Your task to perform on an android device: Open ESPN.com Image 0: 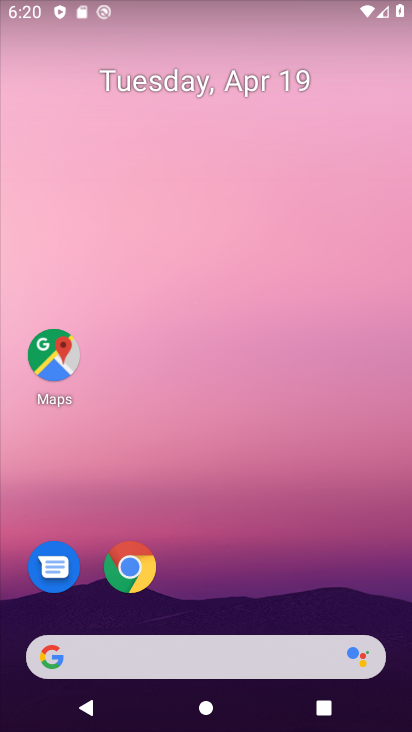
Step 0: click (149, 577)
Your task to perform on an android device: Open ESPN.com Image 1: 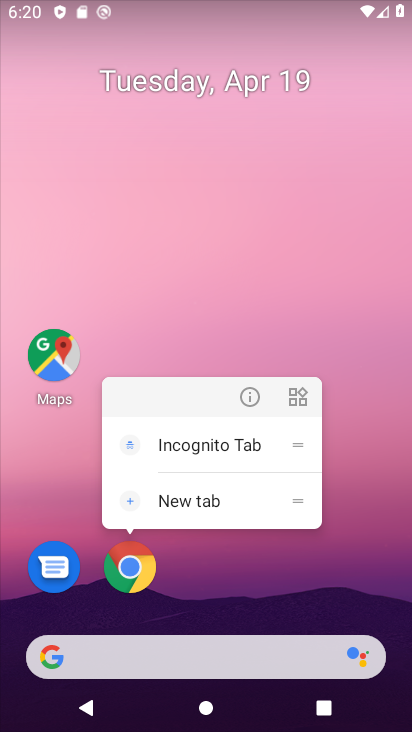
Step 1: click (127, 575)
Your task to perform on an android device: Open ESPN.com Image 2: 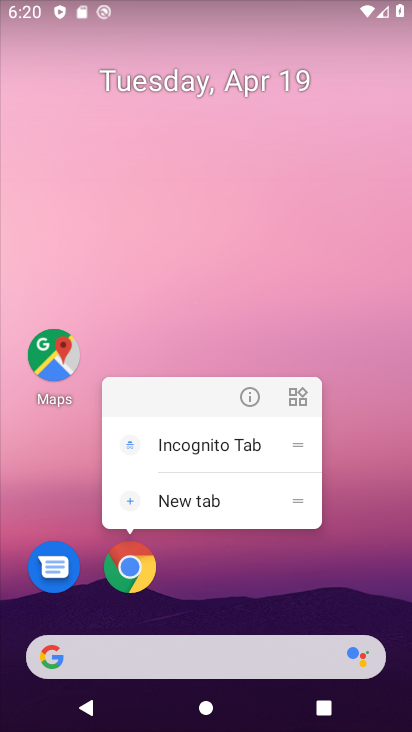
Step 2: click (127, 575)
Your task to perform on an android device: Open ESPN.com Image 3: 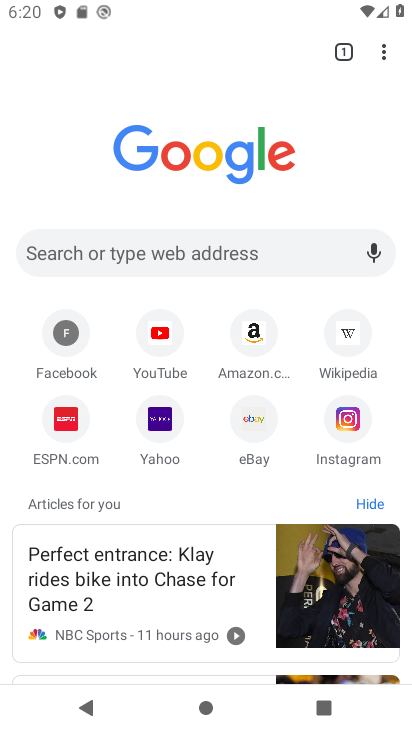
Step 3: click (100, 251)
Your task to perform on an android device: Open ESPN.com Image 4: 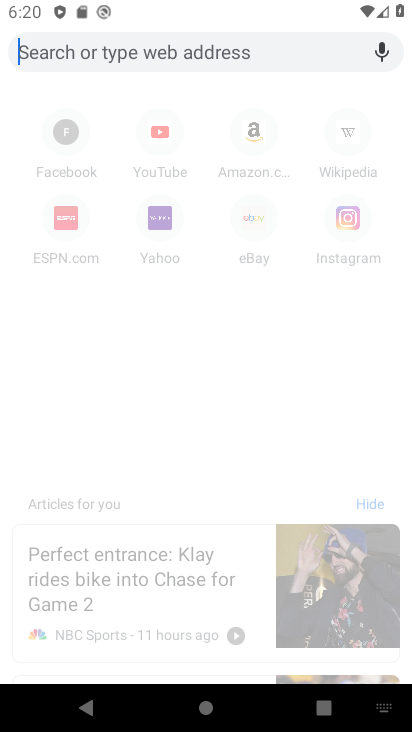
Step 4: type "ESPN.com"
Your task to perform on an android device: Open ESPN.com Image 5: 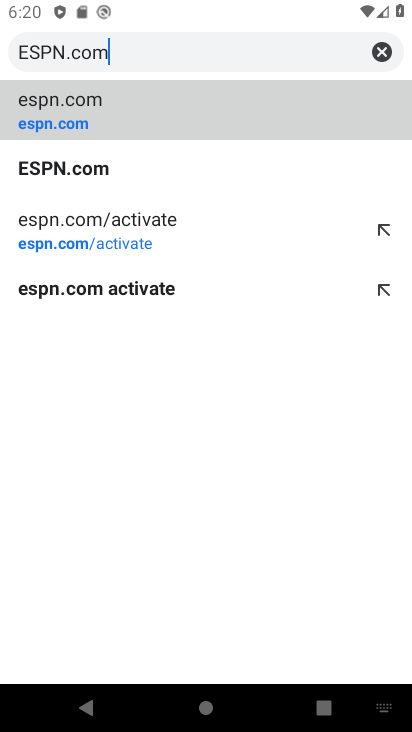
Step 5: type ""
Your task to perform on an android device: Open ESPN.com Image 6: 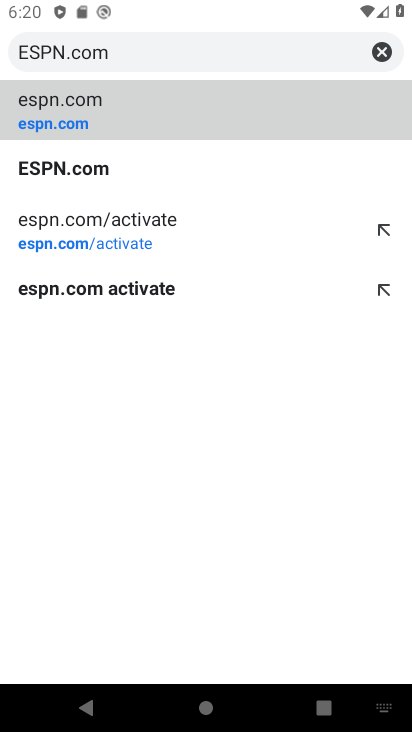
Step 6: click (109, 123)
Your task to perform on an android device: Open ESPN.com Image 7: 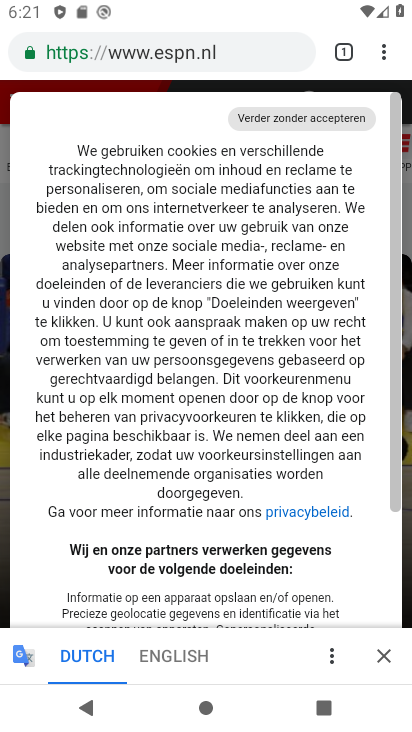
Step 7: task complete